Your task to perform on an android device: change the upload size in google photos Image 0: 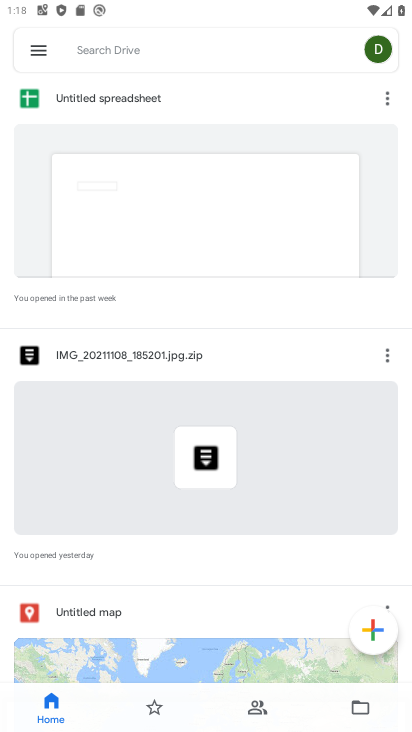
Step 0: press home button
Your task to perform on an android device: change the upload size in google photos Image 1: 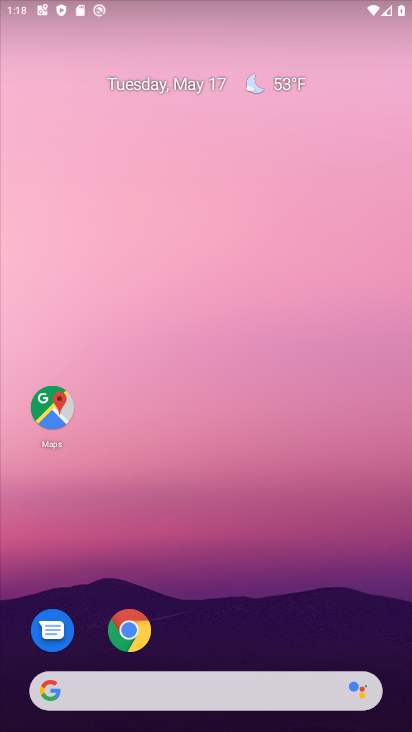
Step 1: drag from (192, 632) to (210, 193)
Your task to perform on an android device: change the upload size in google photos Image 2: 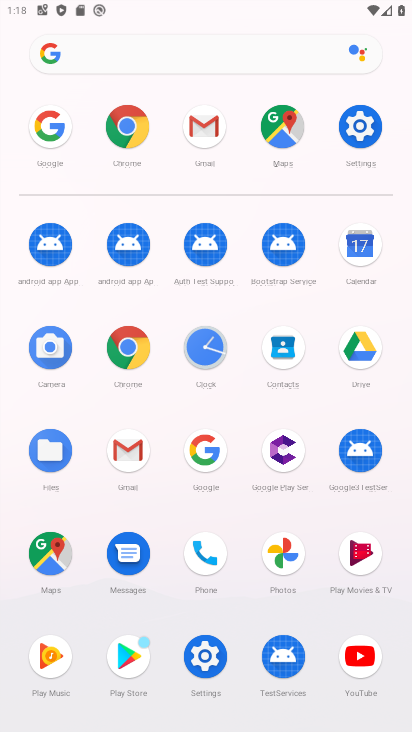
Step 2: click (282, 552)
Your task to perform on an android device: change the upload size in google photos Image 3: 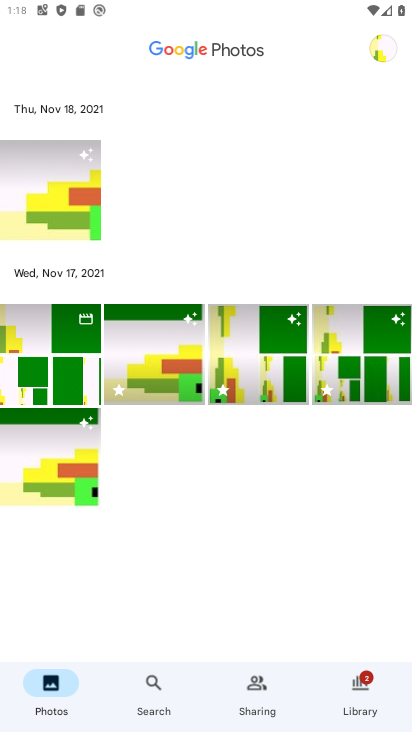
Step 3: click (382, 60)
Your task to perform on an android device: change the upload size in google photos Image 4: 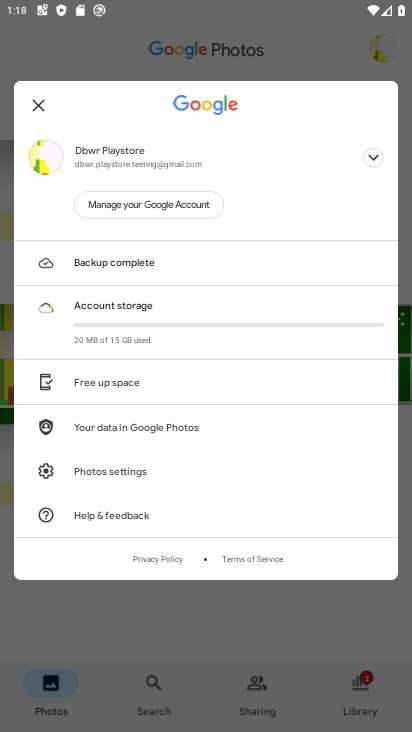
Step 4: click (94, 472)
Your task to perform on an android device: change the upload size in google photos Image 5: 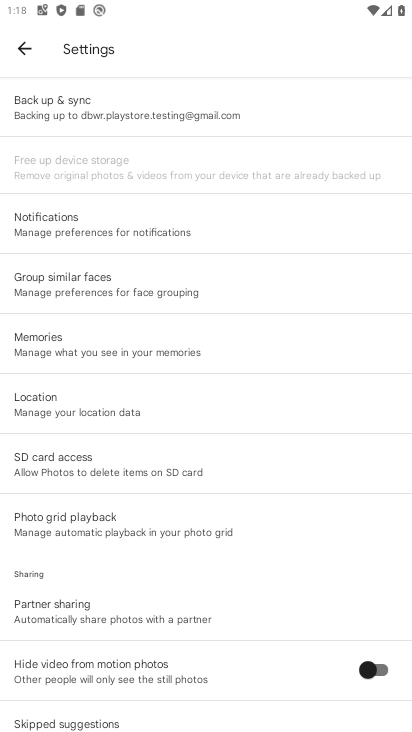
Step 5: drag from (130, 120) to (129, 66)
Your task to perform on an android device: change the upload size in google photos Image 6: 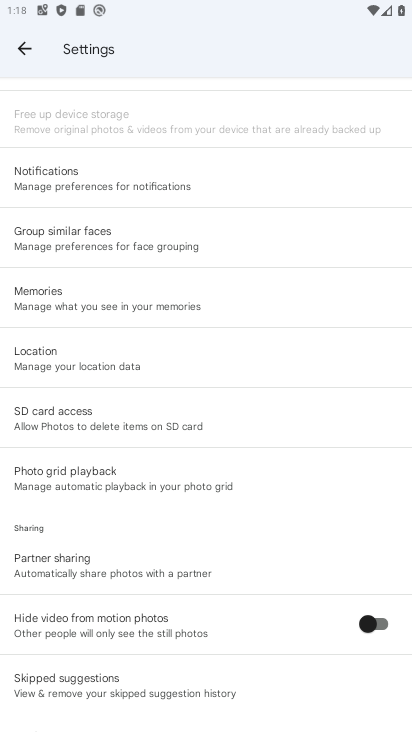
Step 6: drag from (96, 256) to (111, 668)
Your task to perform on an android device: change the upload size in google photos Image 7: 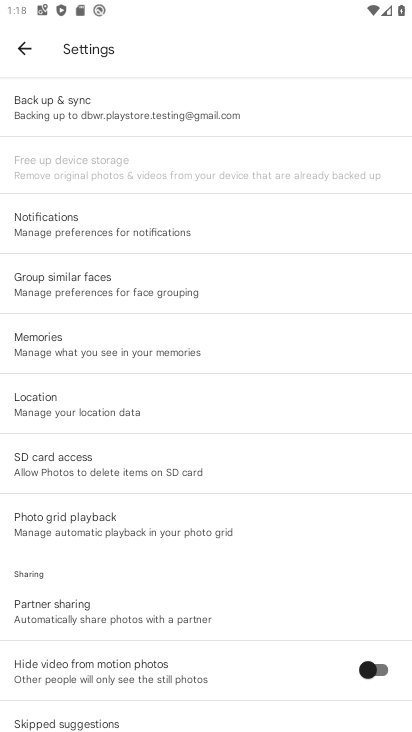
Step 7: click (125, 107)
Your task to perform on an android device: change the upload size in google photos Image 8: 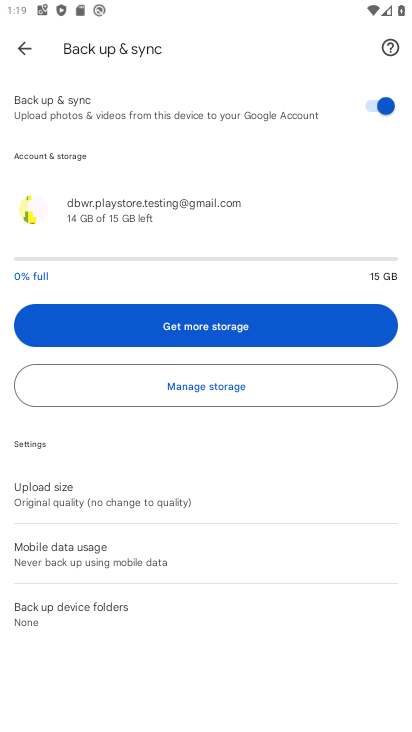
Step 8: click (98, 496)
Your task to perform on an android device: change the upload size in google photos Image 9: 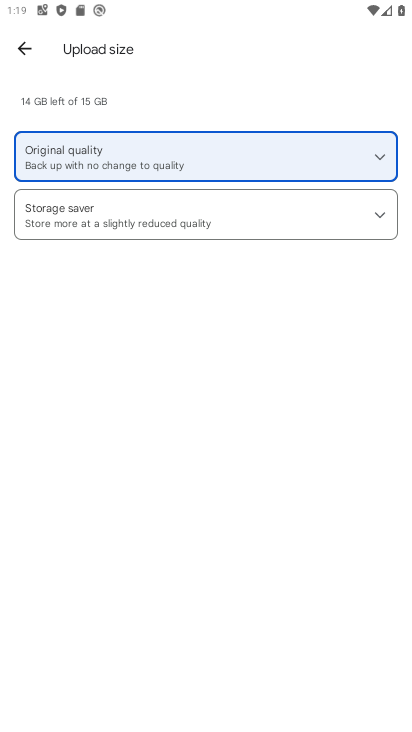
Step 9: click (85, 224)
Your task to perform on an android device: change the upload size in google photos Image 10: 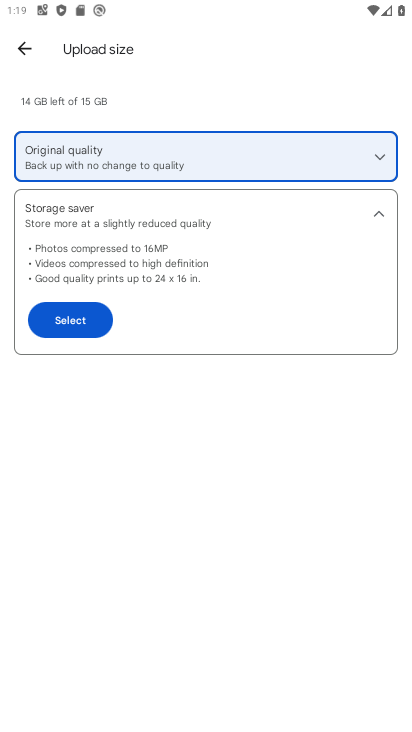
Step 10: click (64, 308)
Your task to perform on an android device: change the upload size in google photos Image 11: 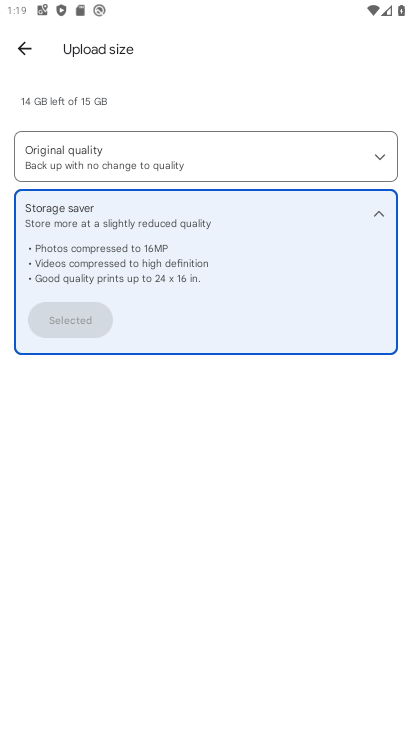
Step 11: task complete